Your task to perform on an android device: Turn on the flashlight Image 0: 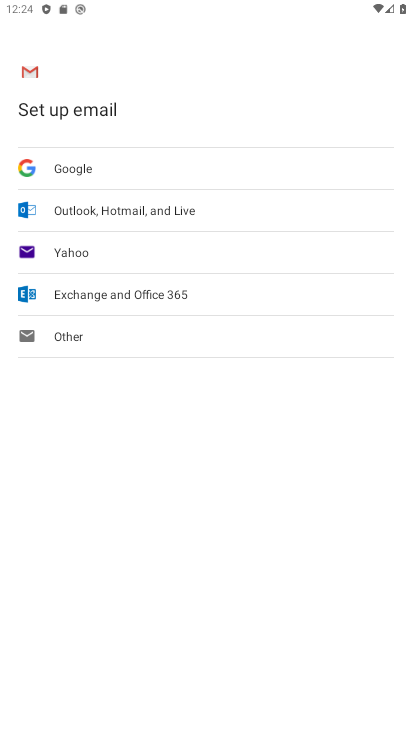
Step 0: press home button
Your task to perform on an android device: Turn on the flashlight Image 1: 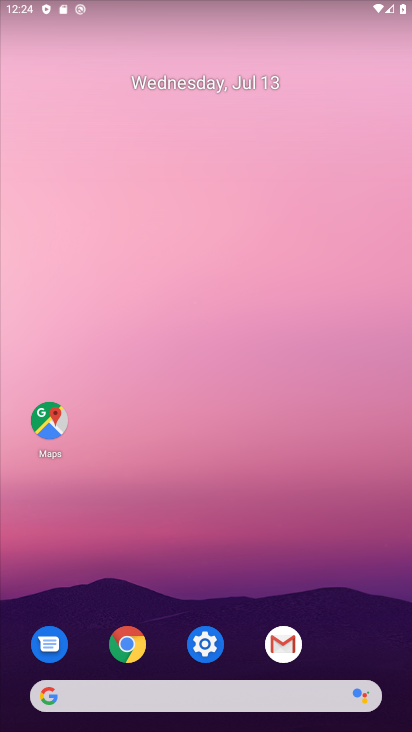
Step 1: click (197, 652)
Your task to perform on an android device: Turn on the flashlight Image 2: 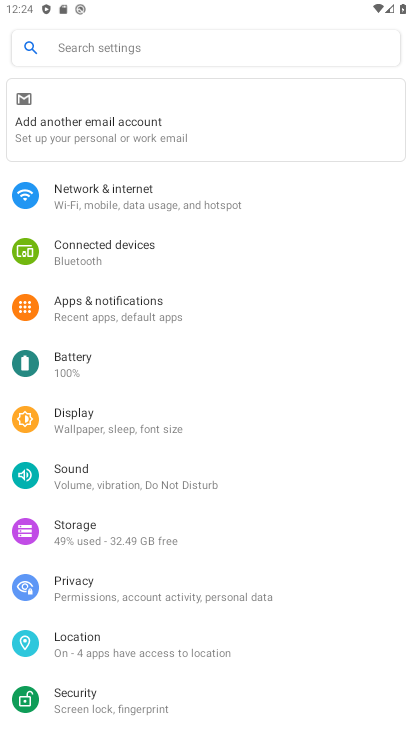
Step 2: click (96, 54)
Your task to perform on an android device: Turn on the flashlight Image 3: 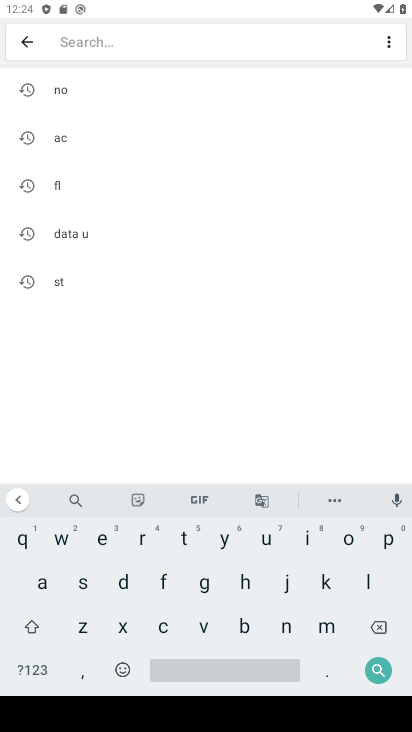
Step 3: click (169, 582)
Your task to perform on an android device: Turn on the flashlight Image 4: 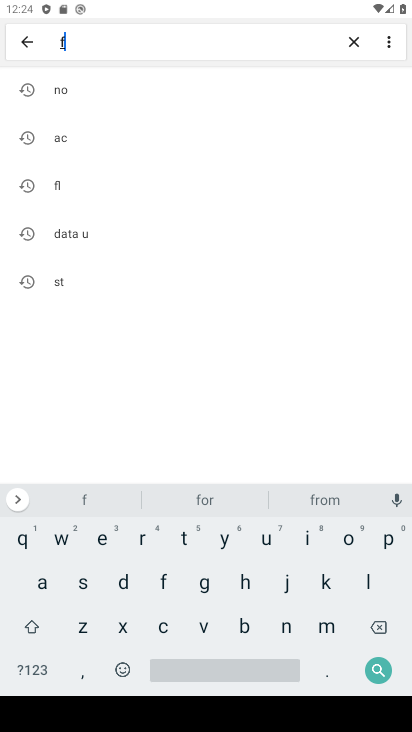
Step 4: click (374, 580)
Your task to perform on an android device: Turn on the flashlight Image 5: 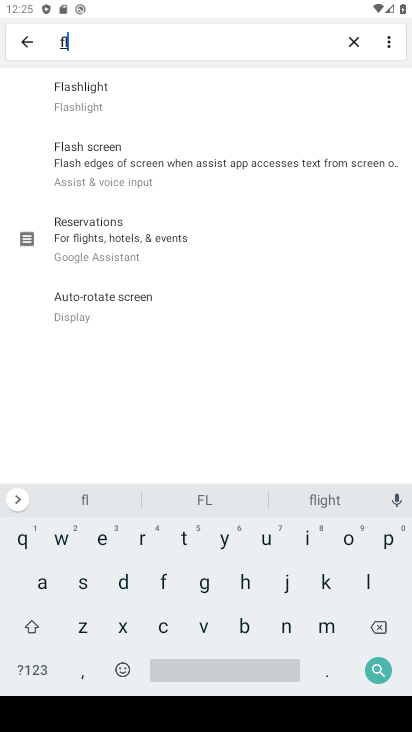
Step 5: click (122, 98)
Your task to perform on an android device: Turn on the flashlight Image 6: 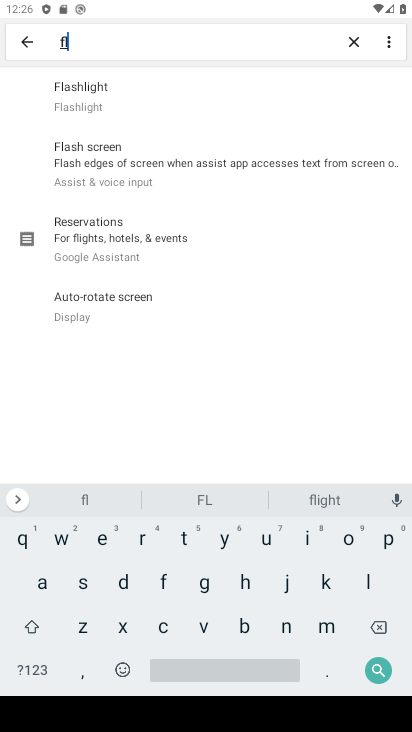
Step 6: task complete